Your task to perform on an android device: Go to eBay Image 0: 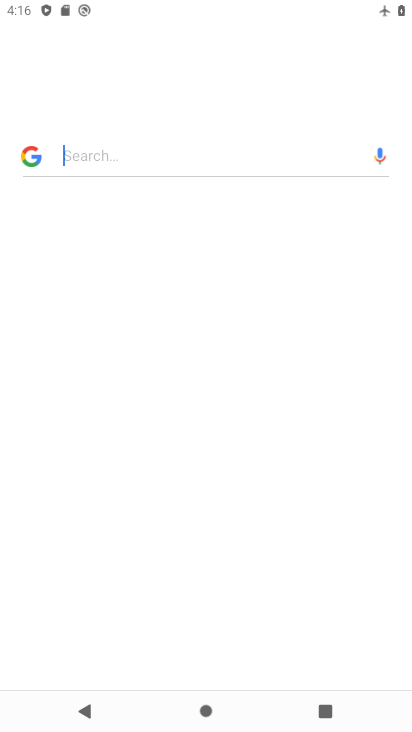
Step 0: drag from (309, 577) to (316, 49)
Your task to perform on an android device: Go to eBay Image 1: 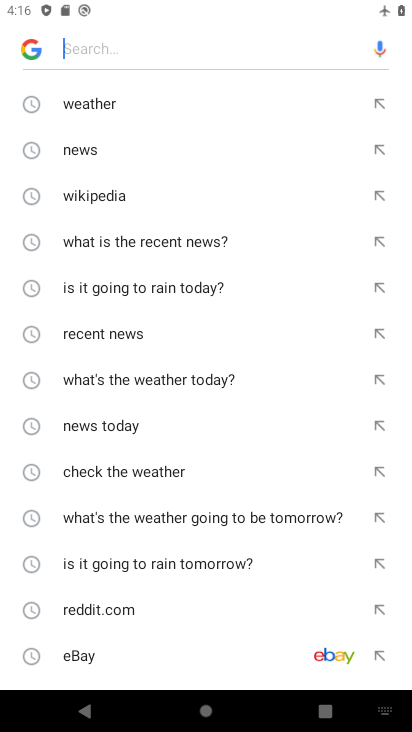
Step 1: press home button
Your task to perform on an android device: Go to eBay Image 2: 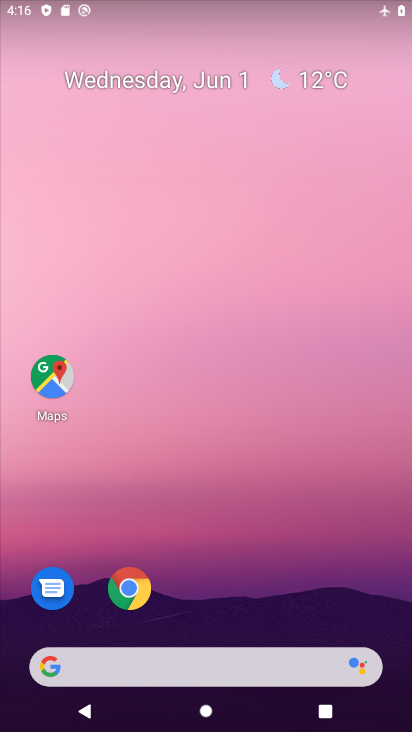
Step 2: drag from (325, 601) to (301, 82)
Your task to perform on an android device: Go to eBay Image 3: 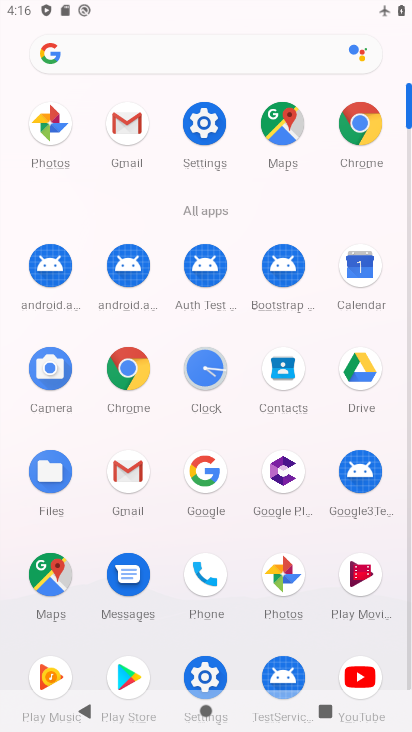
Step 3: click (354, 127)
Your task to perform on an android device: Go to eBay Image 4: 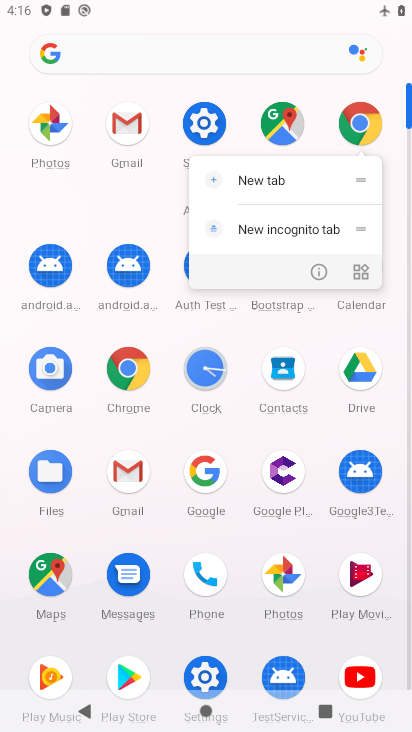
Step 4: click (363, 128)
Your task to perform on an android device: Go to eBay Image 5: 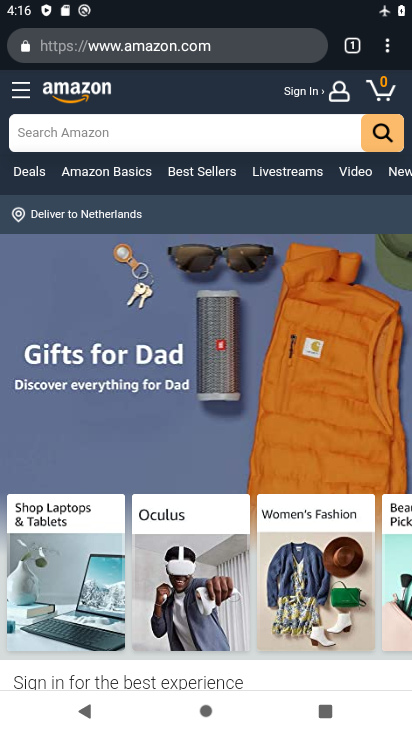
Step 5: click (183, 37)
Your task to perform on an android device: Go to eBay Image 6: 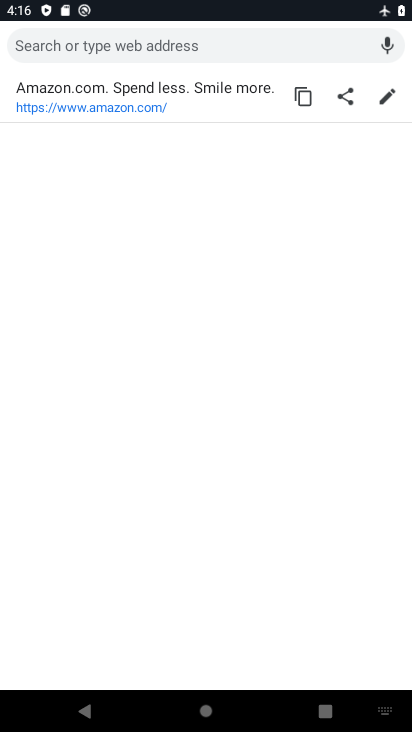
Step 6: type "ebay"
Your task to perform on an android device: Go to eBay Image 7: 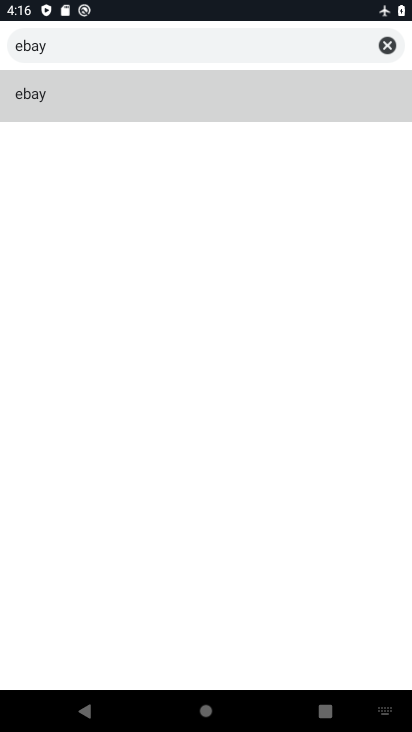
Step 7: click (61, 96)
Your task to perform on an android device: Go to eBay Image 8: 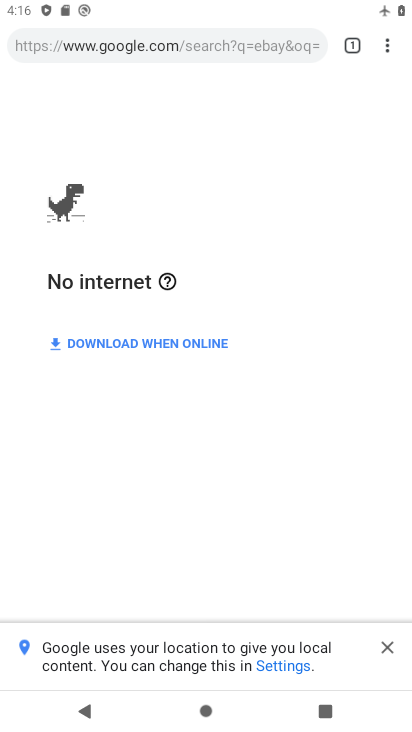
Step 8: task complete